Your task to perform on an android device: Find coffee shops on Maps Image 0: 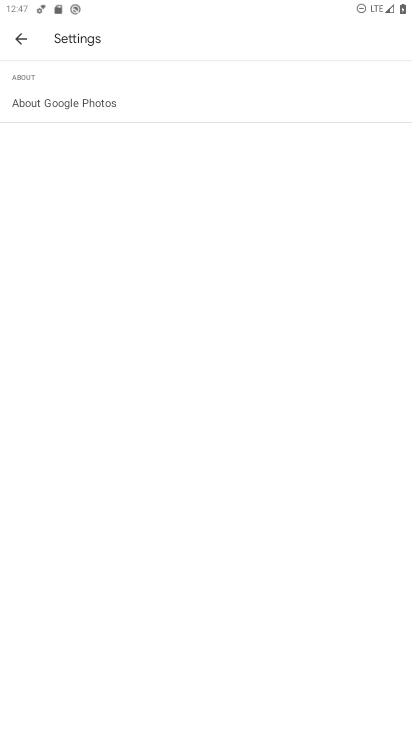
Step 0: drag from (243, 560) to (17, 656)
Your task to perform on an android device: Find coffee shops on Maps Image 1: 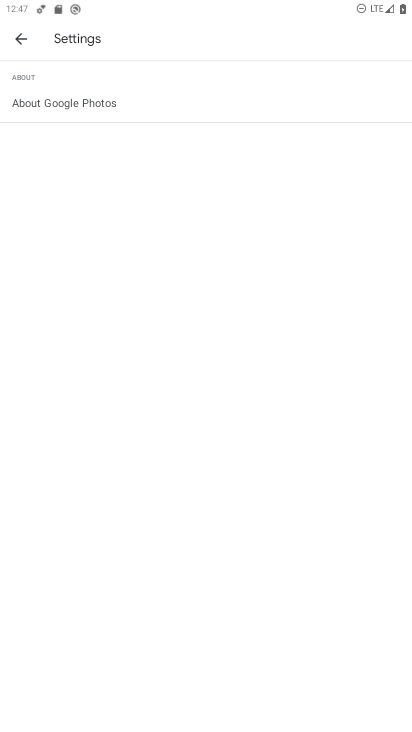
Step 1: drag from (203, 534) to (232, 94)
Your task to perform on an android device: Find coffee shops on Maps Image 2: 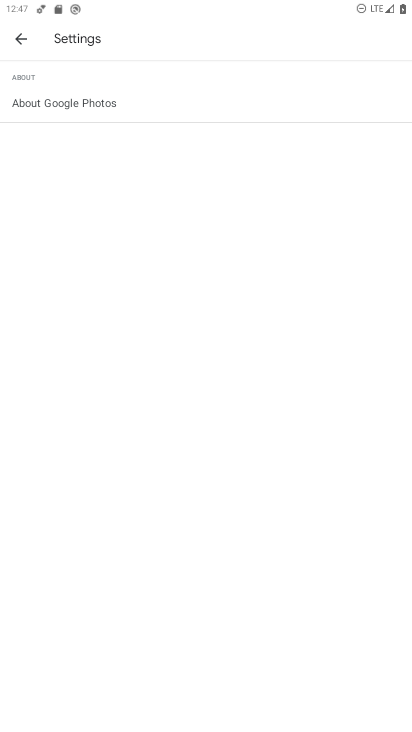
Step 2: drag from (170, 608) to (46, 16)
Your task to perform on an android device: Find coffee shops on Maps Image 3: 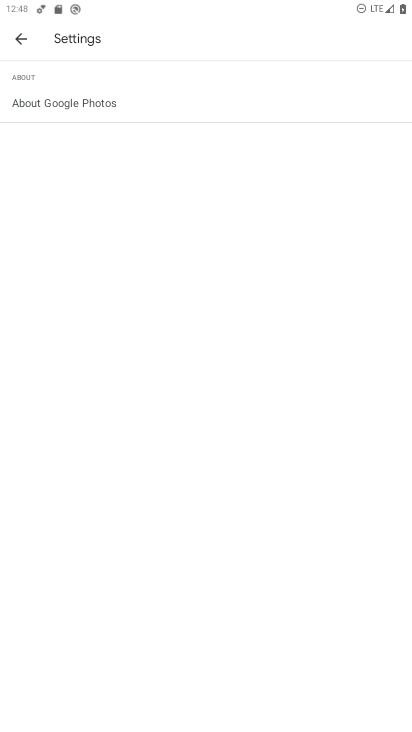
Step 3: drag from (166, 573) to (235, 67)
Your task to perform on an android device: Find coffee shops on Maps Image 4: 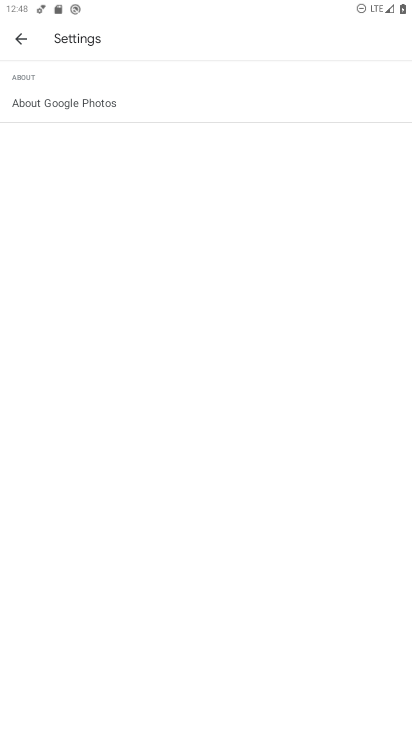
Step 4: press home button
Your task to perform on an android device: Find coffee shops on Maps Image 5: 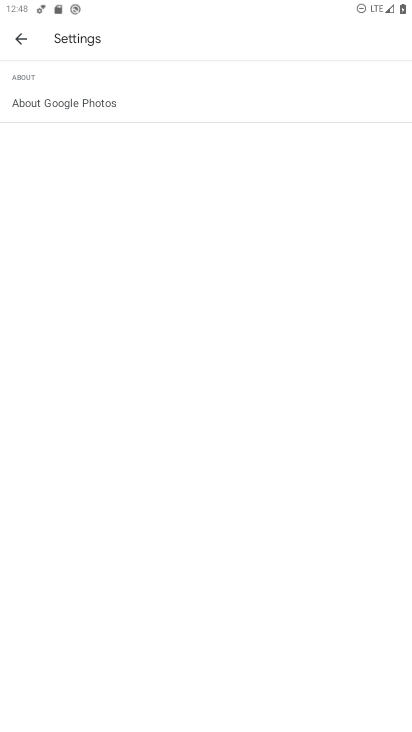
Step 5: drag from (269, 681) to (297, 254)
Your task to perform on an android device: Find coffee shops on Maps Image 6: 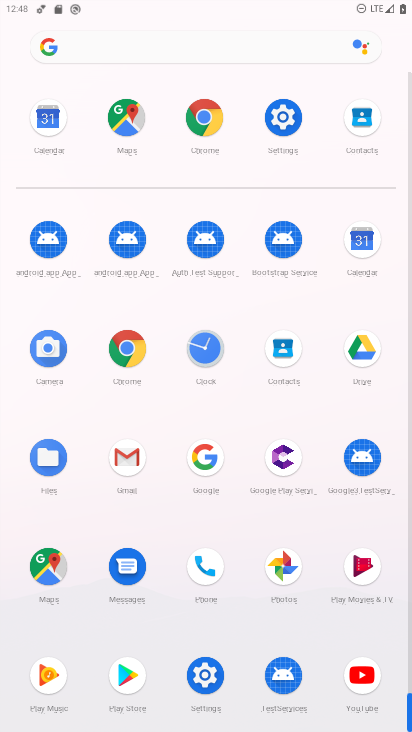
Step 6: click (193, 46)
Your task to perform on an android device: Find coffee shops on Maps Image 7: 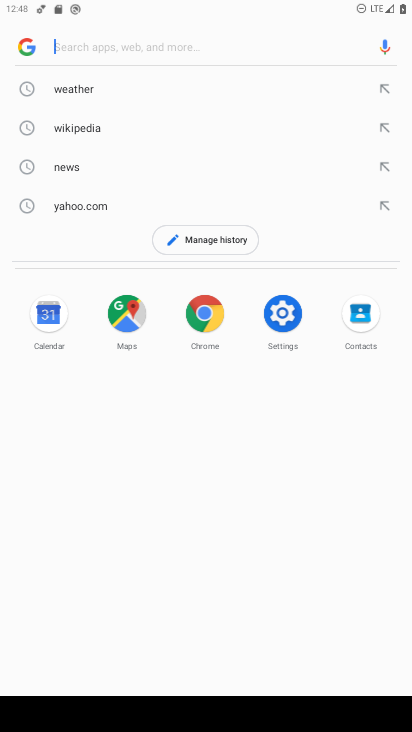
Step 7: press home button
Your task to perform on an android device: Find coffee shops on Maps Image 8: 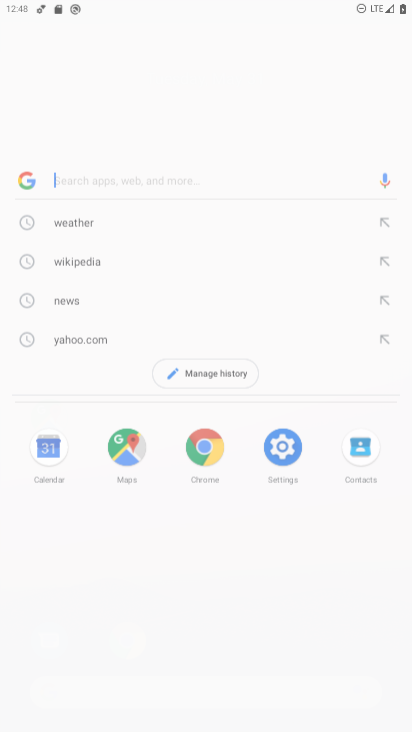
Step 8: drag from (271, 485) to (300, 7)
Your task to perform on an android device: Find coffee shops on Maps Image 9: 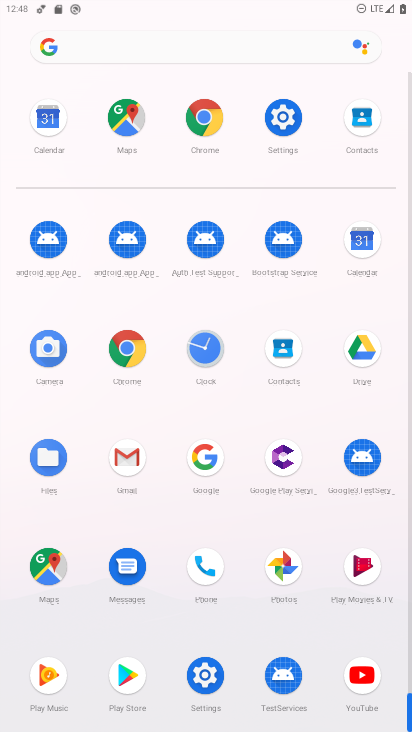
Step 9: click (42, 556)
Your task to perform on an android device: Find coffee shops on Maps Image 10: 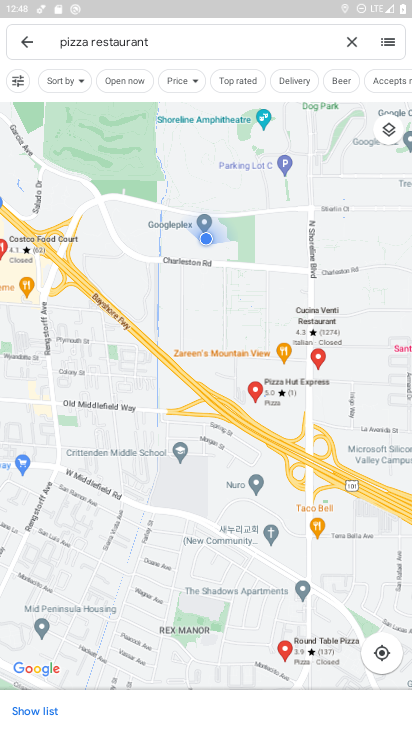
Step 10: click (342, 43)
Your task to perform on an android device: Find coffee shops on Maps Image 11: 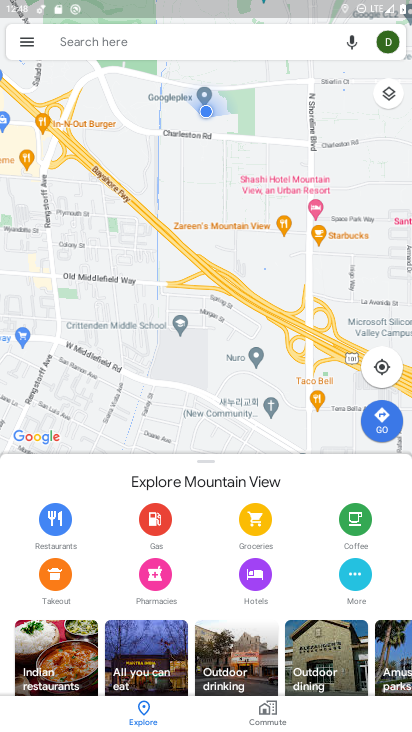
Step 11: click (342, 40)
Your task to perform on an android device: Find coffee shops on Maps Image 12: 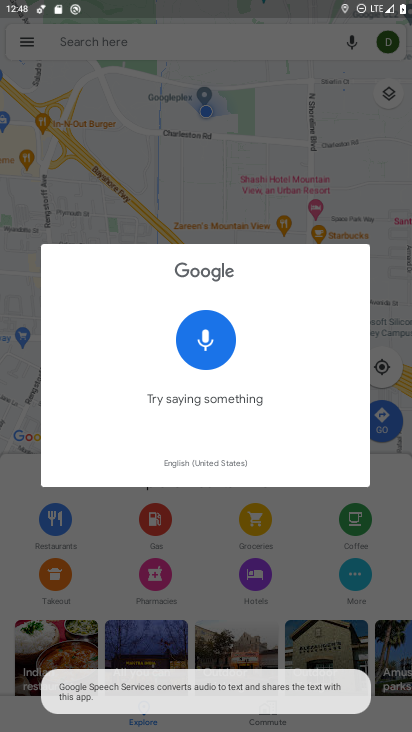
Step 12: press back button
Your task to perform on an android device: Find coffee shops on Maps Image 13: 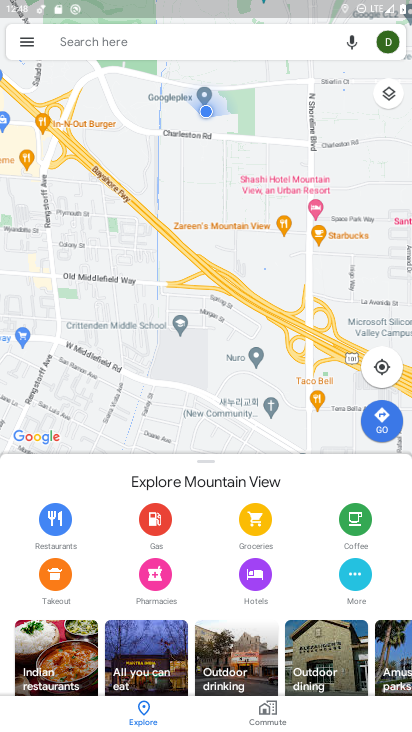
Step 13: click (134, 42)
Your task to perform on an android device: Find coffee shops on Maps Image 14: 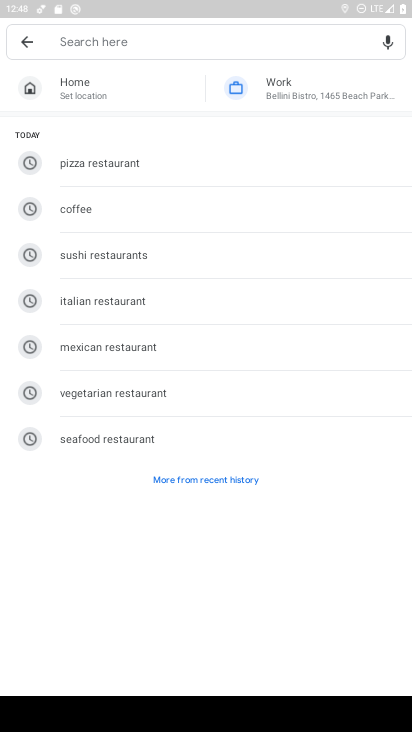
Step 14: click (118, 203)
Your task to perform on an android device: Find coffee shops on Maps Image 15: 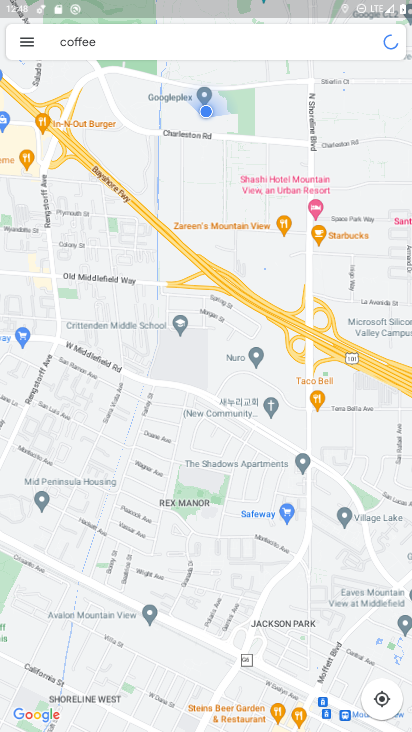
Step 15: task complete